Your task to perform on an android device: set default search engine in the chrome app Image 0: 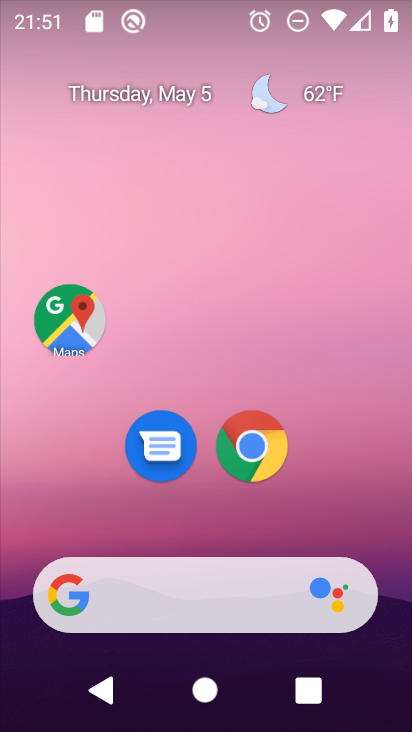
Step 0: drag from (324, 598) to (245, 129)
Your task to perform on an android device: set default search engine in the chrome app Image 1: 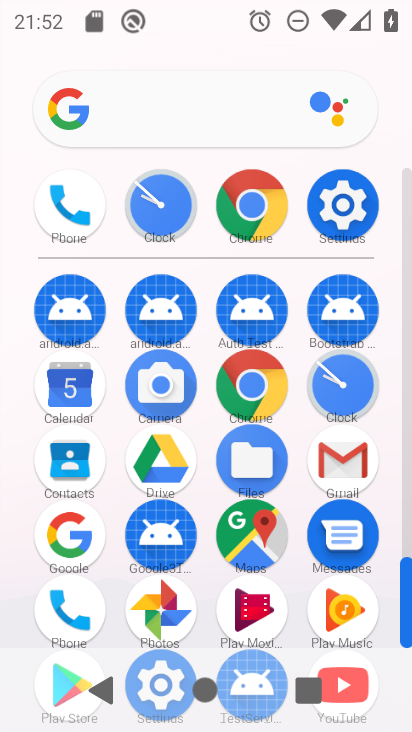
Step 1: click (277, 390)
Your task to perform on an android device: set default search engine in the chrome app Image 2: 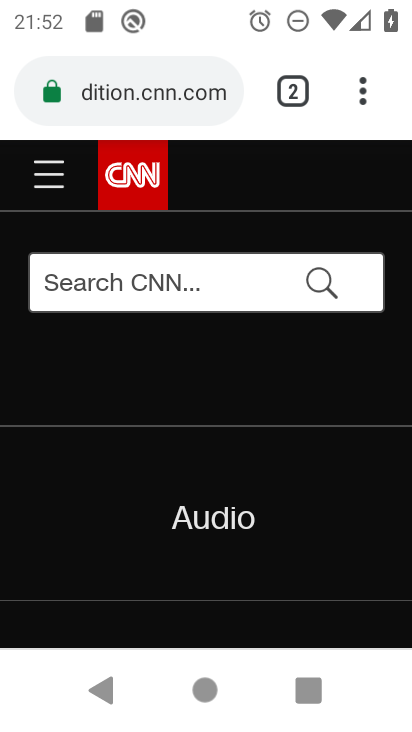
Step 2: click (365, 110)
Your task to perform on an android device: set default search engine in the chrome app Image 3: 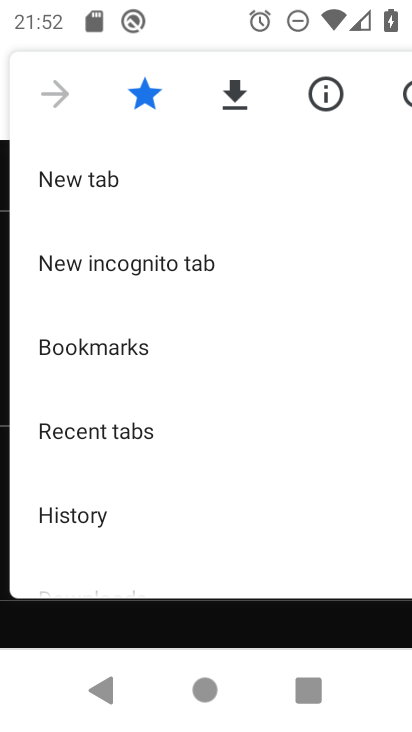
Step 3: drag from (182, 462) to (242, 202)
Your task to perform on an android device: set default search engine in the chrome app Image 4: 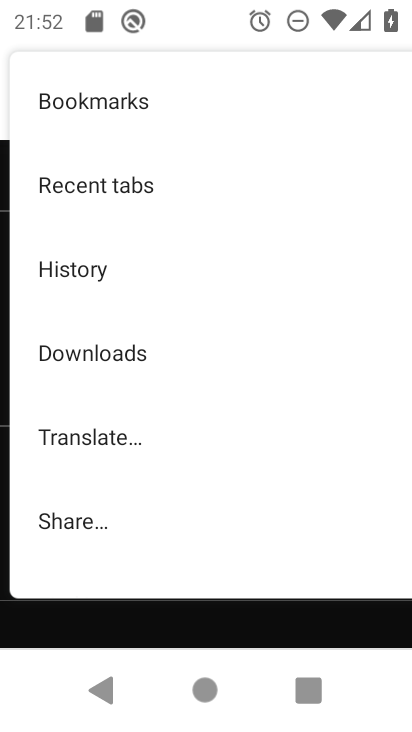
Step 4: drag from (150, 539) to (147, 310)
Your task to perform on an android device: set default search engine in the chrome app Image 5: 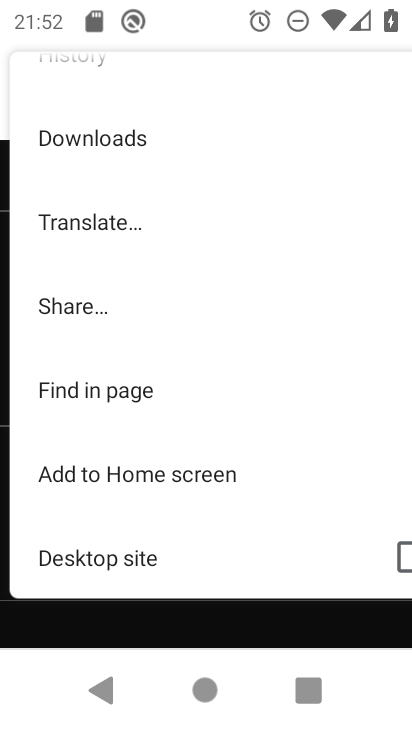
Step 5: drag from (146, 543) to (179, 288)
Your task to perform on an android device: set default search engine in the chrome app Image 6: 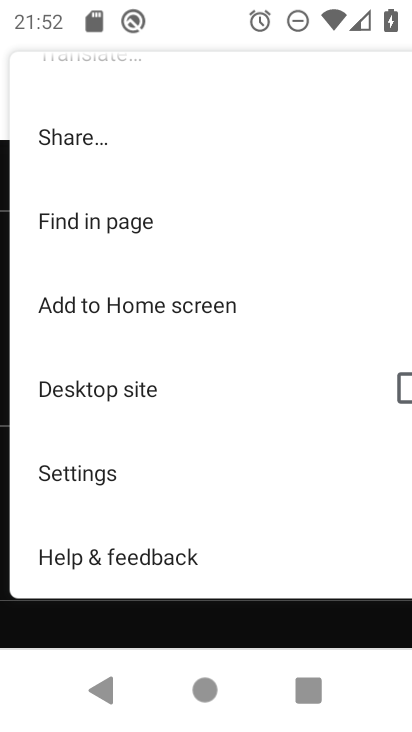
Step 6: click (131, 479)
Your task to perform on an android device: set default search engine in the chrome app Image 7: 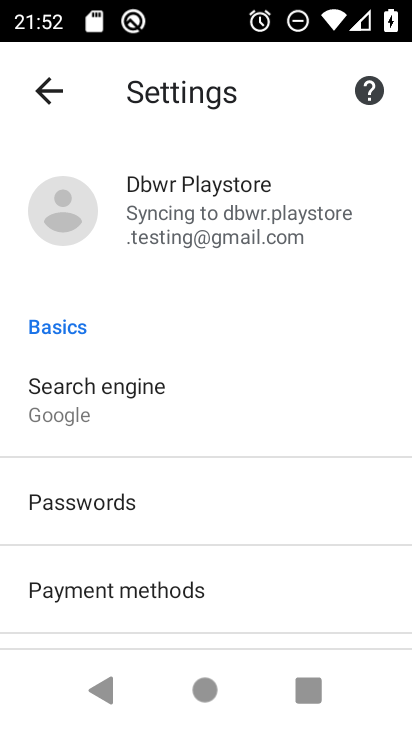
Step 7: drag from (179, 556) to (198, 240)
Your task to perform on an android device: set default search engine in the chrome app Image 8: 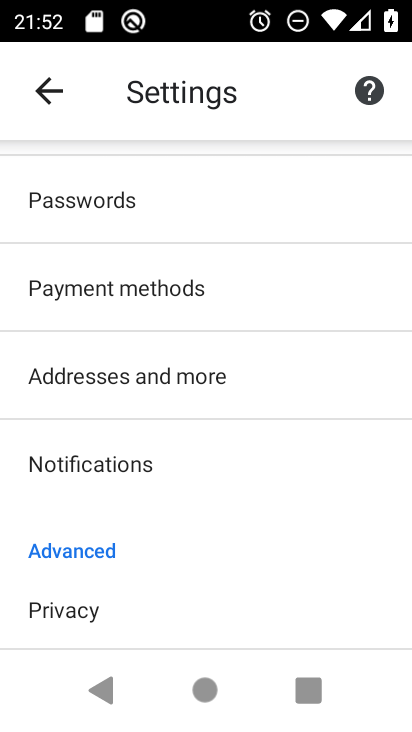
Step 8: drag from (147, 566) to (144, 290)
Your task to perform on an android device: set default search engine in the chrome app Image 9: 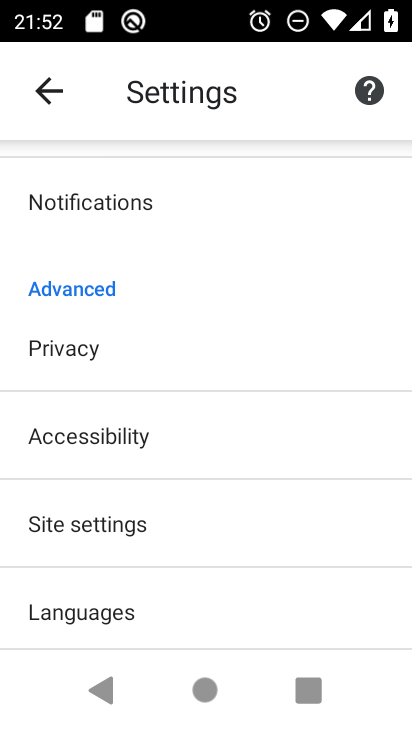
Step 9: drag from (102, 595) to (153, 321)
Your task to perform on an android device: set default search engine in the chrome app Image 10: 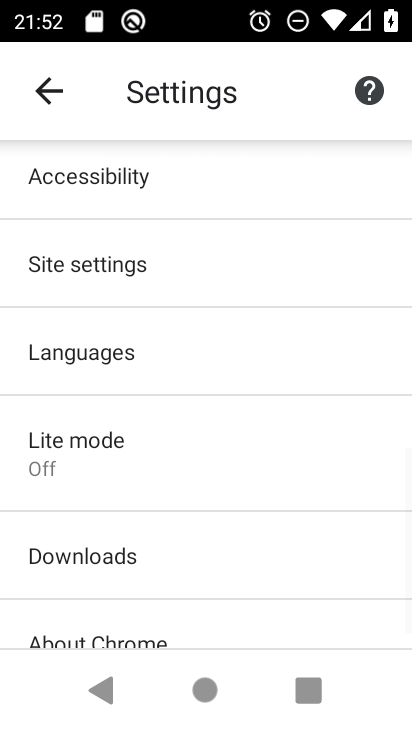
Step 10: drag from (124, 575) to (139, 425)
Your task to perform on an android device: set default search engine in the chrome app Image 11: 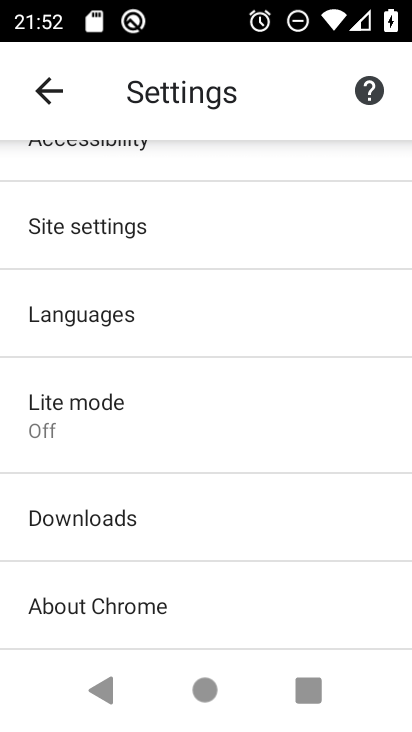
Step 11: drag from (149, 403) to (165, 598)
Your task to perform on an android device: set default search engine in the chrome app Image 12: 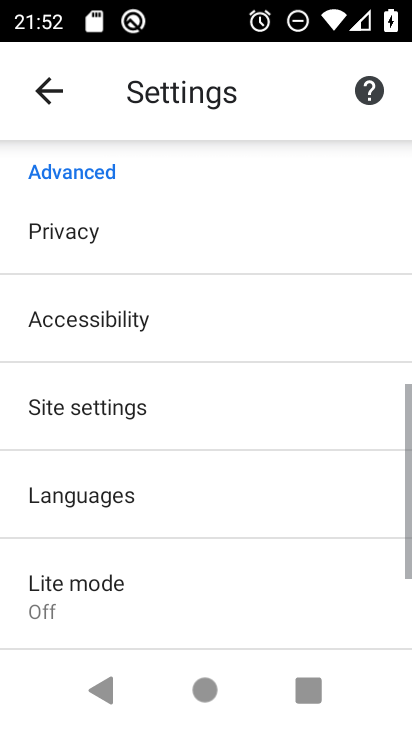
Step 12: drag from (160, 245) to (152, 619)
Your task to perform on an android device: set default search engine in the chrome app Image 13: 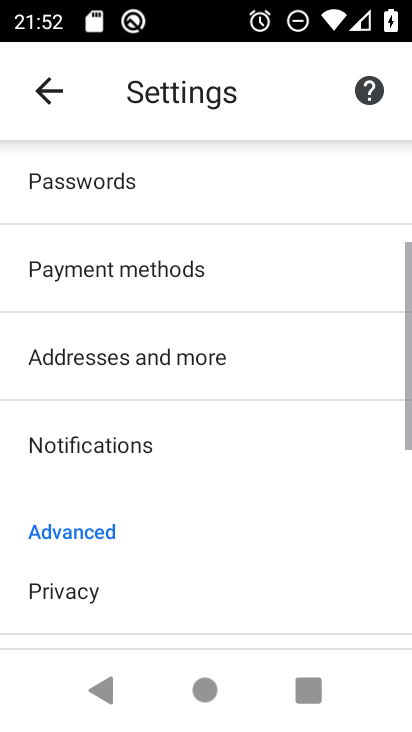
Step 13: drag from (136, 258) to (117, 546)
Your task to perform on an android device: set default search engine in the chrome app Image 14: 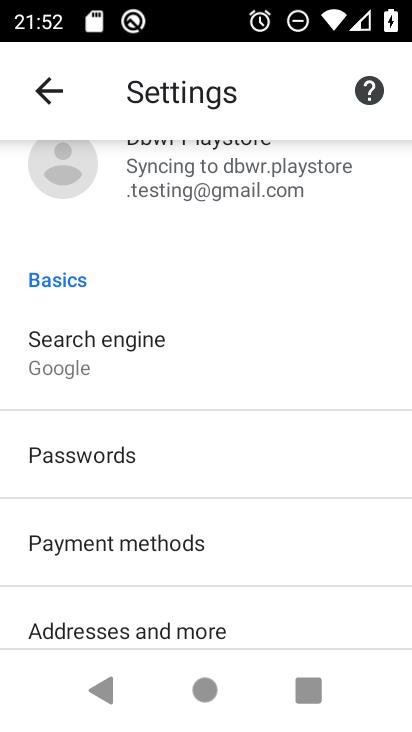
Step 14: click (61, 340)
Your task to perform on an android device: set default search engine in the chrome app Image 15: 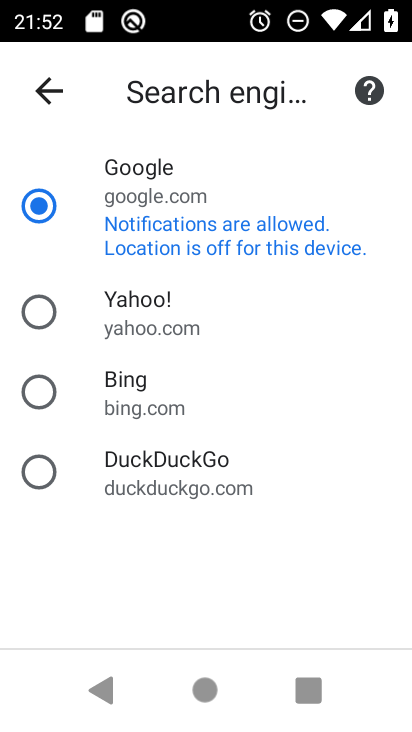
Step 15: task complete